Your task to perform on an android device: change alarm snooze length Image 0: 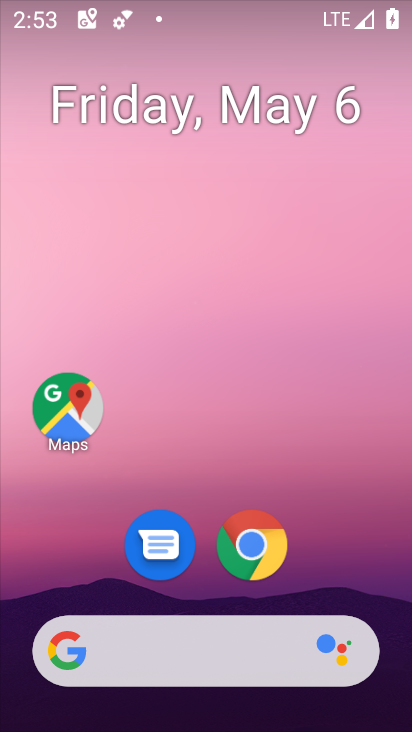
Step 0: drag from (378, 324) to (350, 198)
Your task to perform on an android device: change alarm snooze length Image 1: 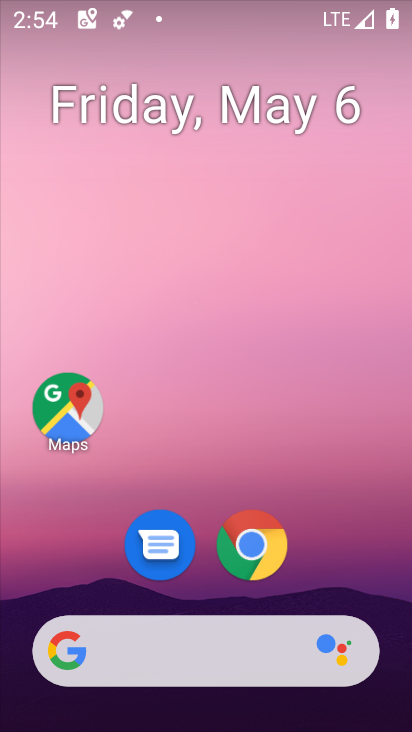
Step 1: drag from (388, 666) to (387, 242)
Your task to perform on an android device: change alarm snooze length Image 2: 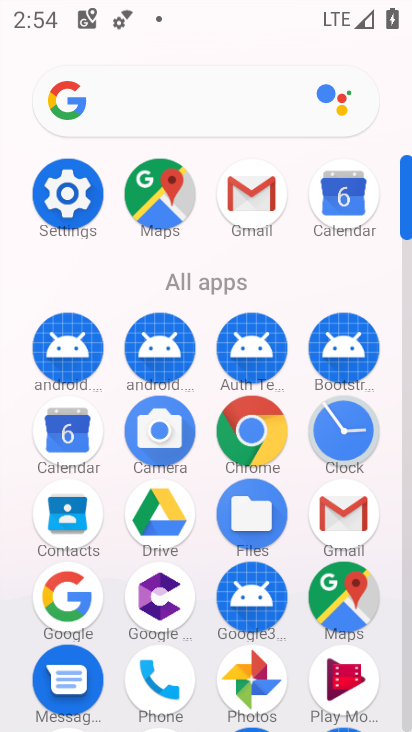
Step 2: click (359, 443)
Your task to perform on an android device: change alarm snooze length Image 3: 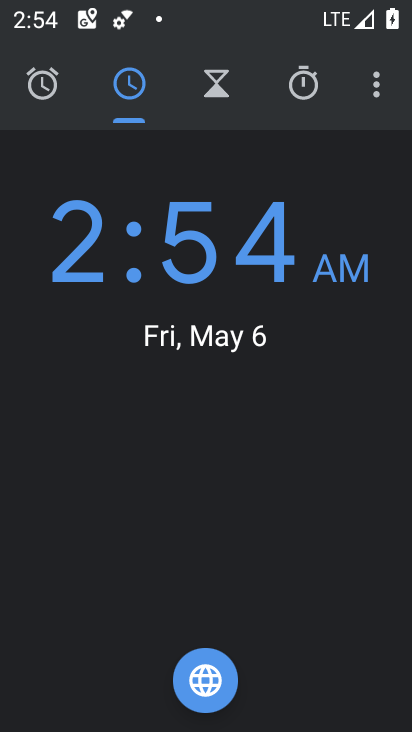
Step 3: click (374, 76)
Your task to perform on an android device: change alarm snooze length Image 4: 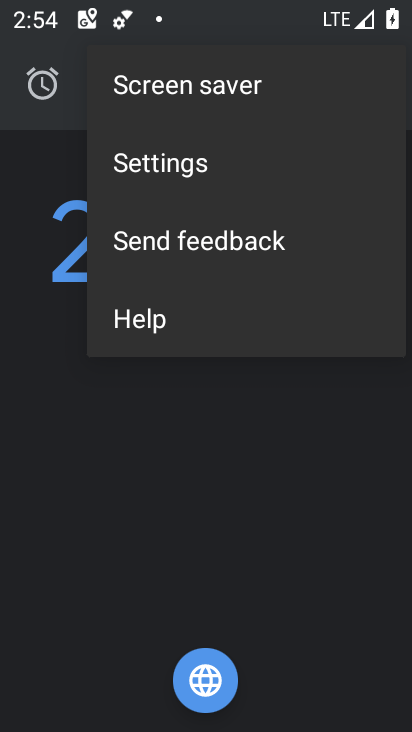
Step 4: click (166, 161)
Your task to perform on an android device: change alarm snooze length Image 5: 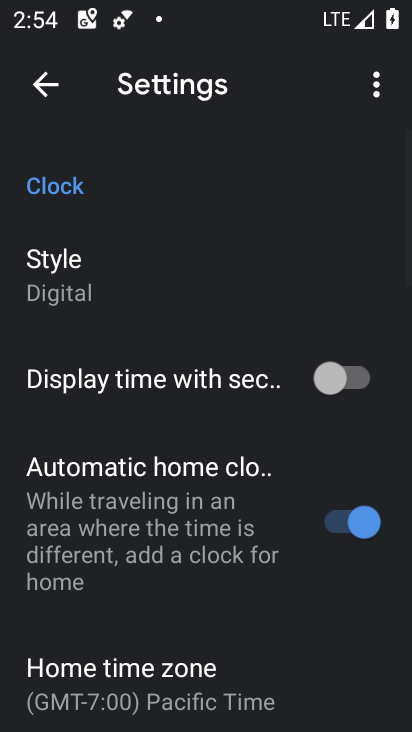
Step 5: drag from (288, 630) to (259, 325)
Your task to perform on an android device: change alarm snooze length Image 6: 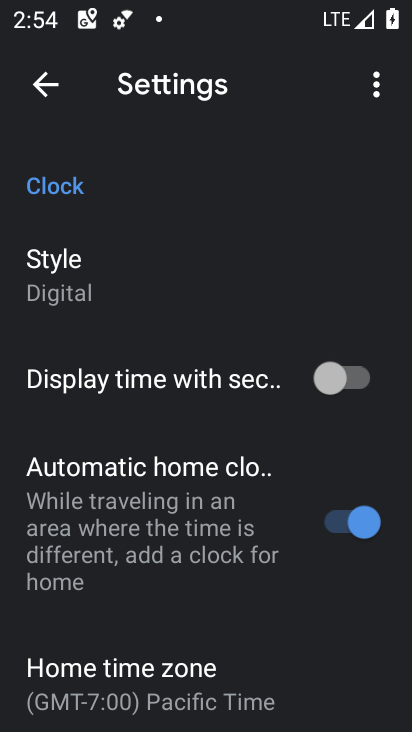
Step 6: drag from (310, 649) to (291, 321)
Your task to perform on an android device: change alarm snooze length Image 7: 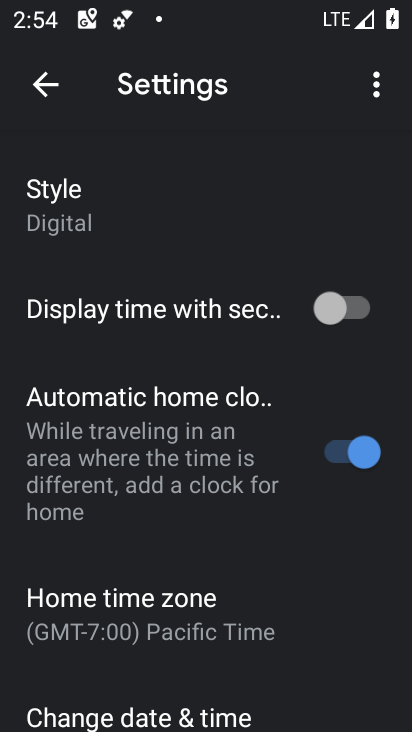
Step 7: drag from (325, 693) to (330, 245)
Your task to perform on an android device: change alarm snooze length Image 8: 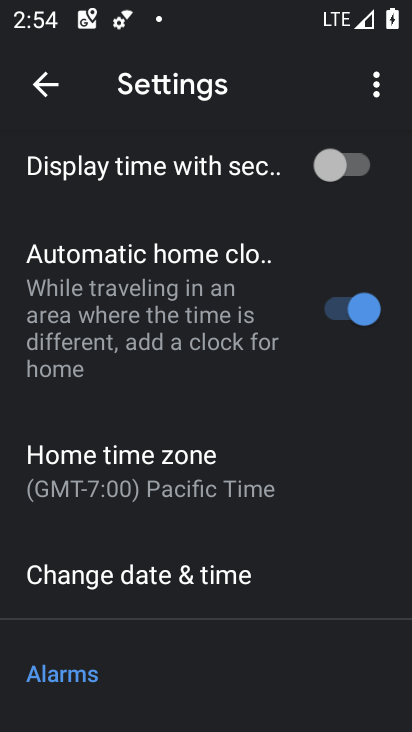
Step 8: drag from (356, 680) to (334, 232)
Your task to perform on an android device: change alarm snooze length Image 9: 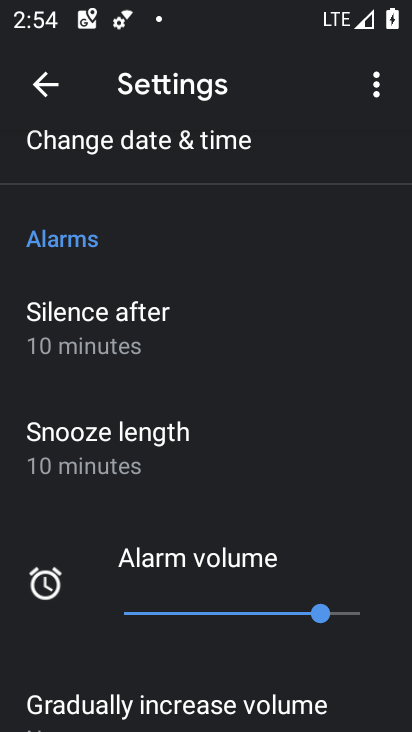
Step 9: click (101, 430)
Your task to perform on an android device: change alarm snooze length Image 10: 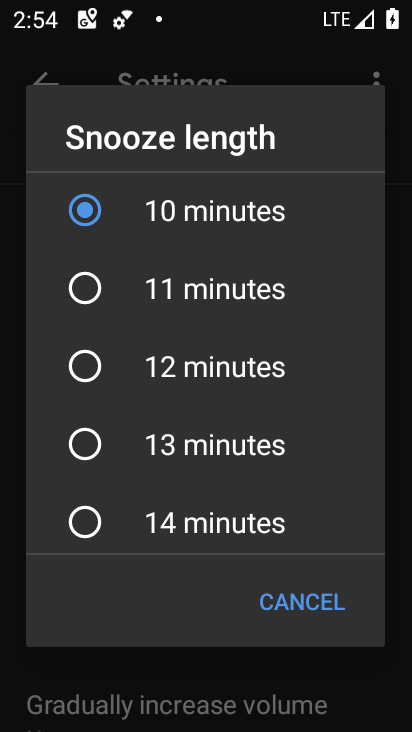
Step 10: click (88, 448)
Your task to perform on an android device: change alarm snooze length Image 11: 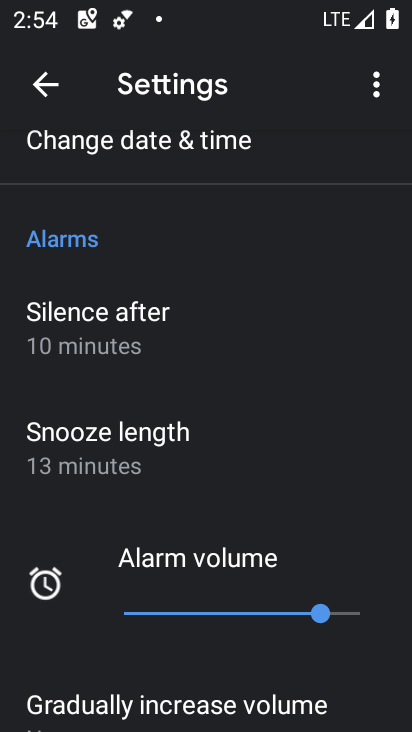
Step 11: task complete